Your task to perform on an android device: install app "PUBG MOBILE" Image 0: 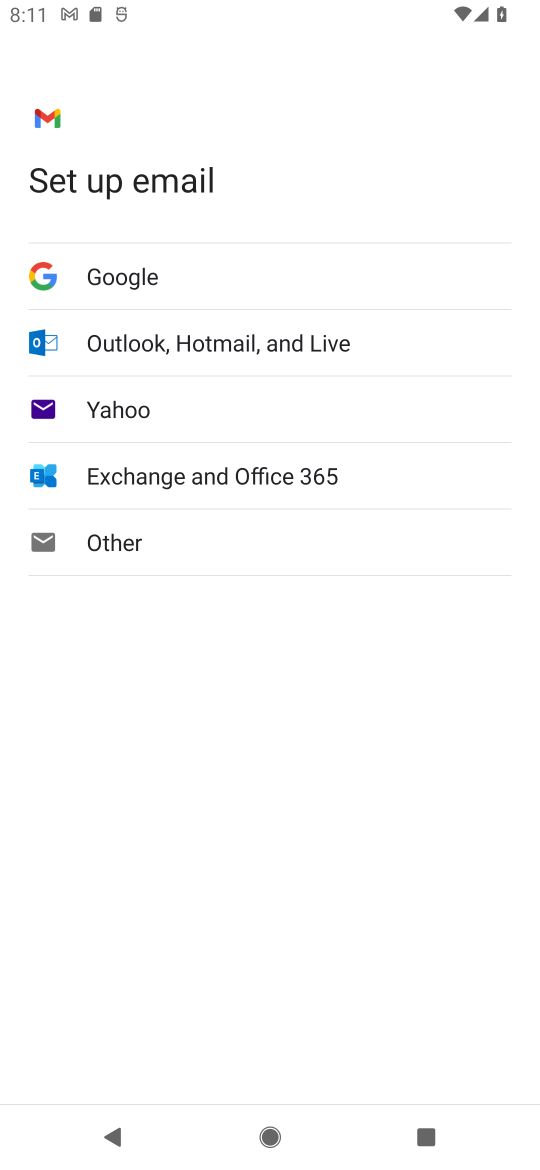
Step 0: press home button
Your task to perform on an android device: install app "PUBG MOBILE" Image 1: 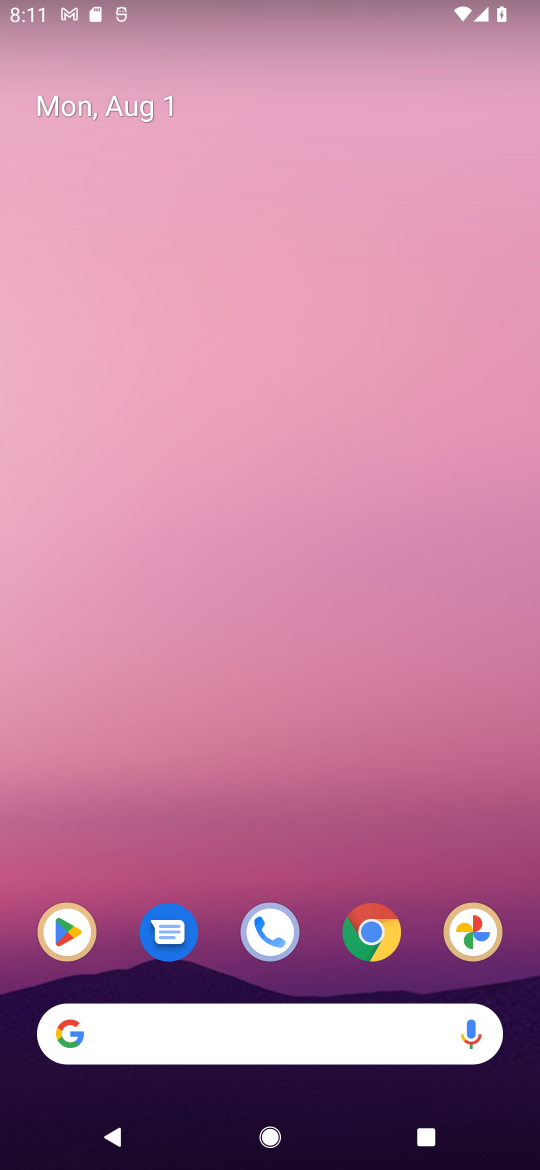
Step 1: click (89, 917)
Your task to perform on an android device: install app "PUBG MOBILE" Image 2: 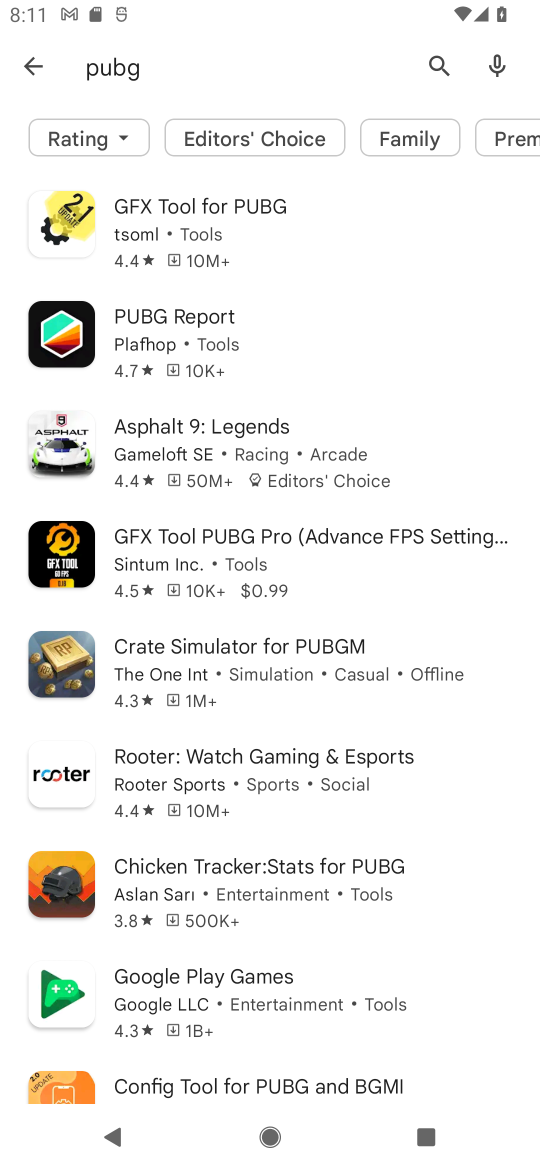
Step 2: click (213, 68)
Your task to perform on an android device: install app "PUBG MOBILE" Image 3: 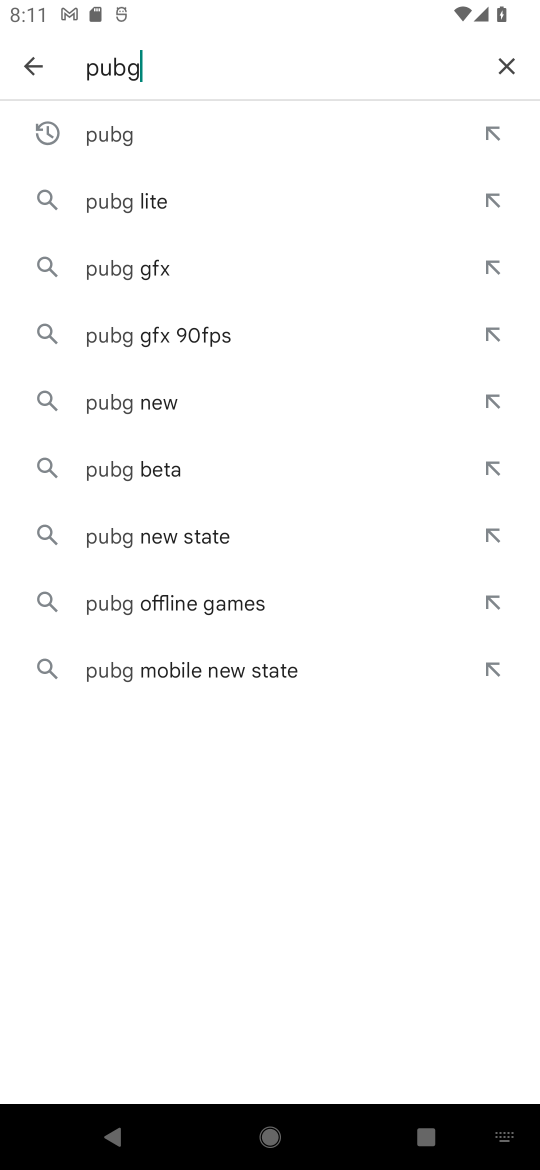
Step 3: click (510, 64)
Your task to perform on an android device: install app "PUBG MOBILE" Image 4: 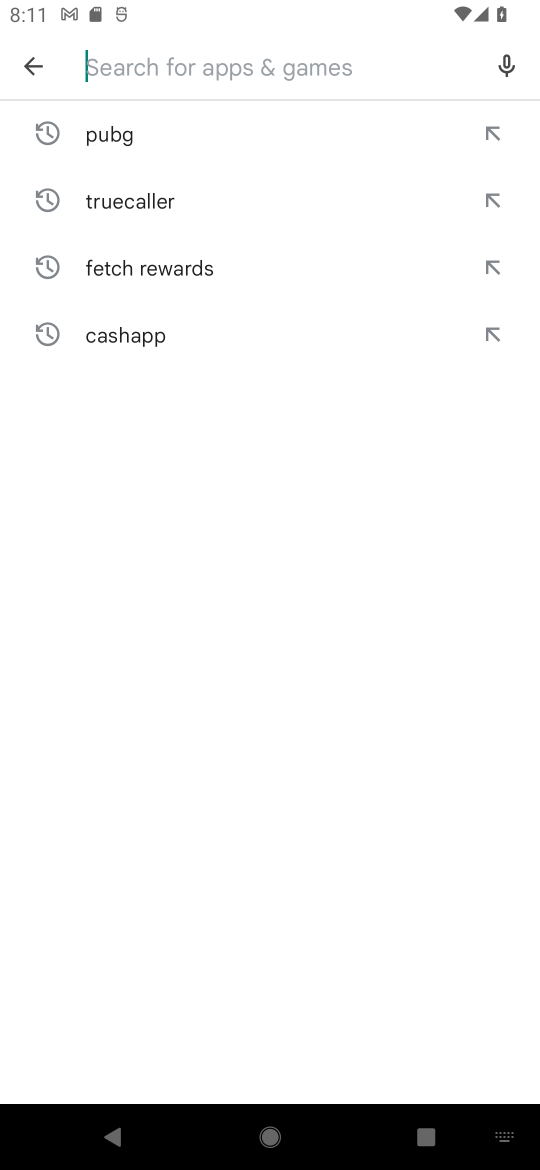
Step 4: type "PUBG Mobile"
Your task to perform on an android device: install app "PUBG MOBILE" Image 5: 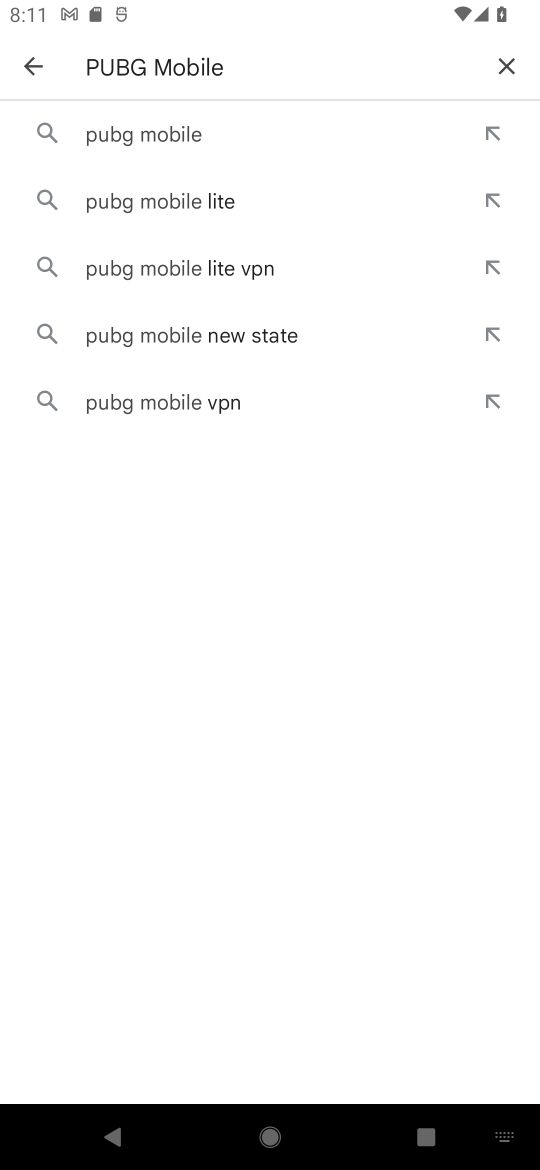
Step 5: click (152, 155)
Your task to perform on an android device: install app "PUBG MOBILE" Image 6: 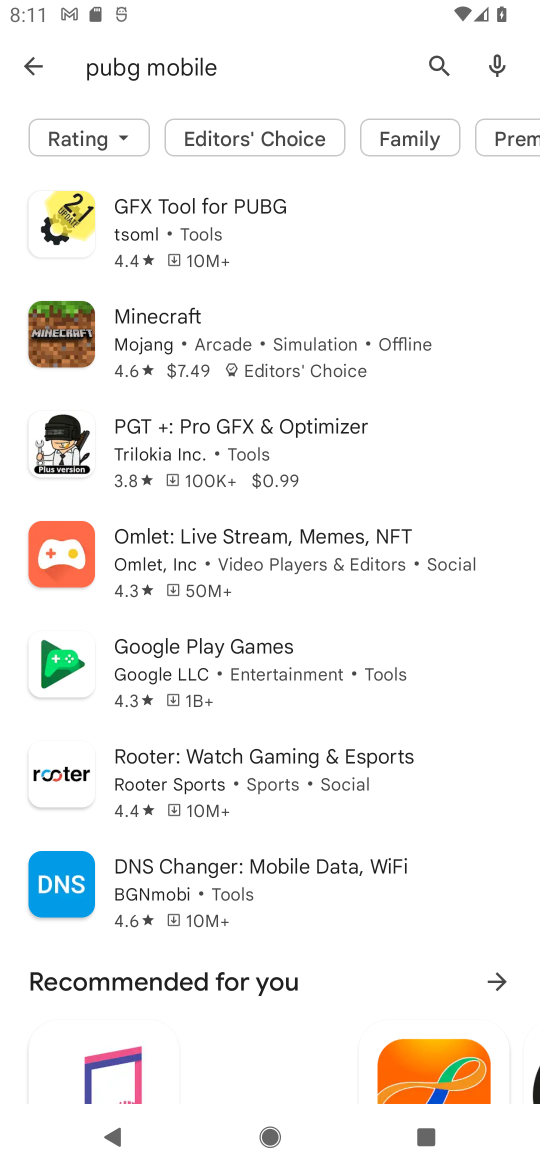
Step 6: task complete